Your task to perform on an android device: Go to privacy settings Image 0: 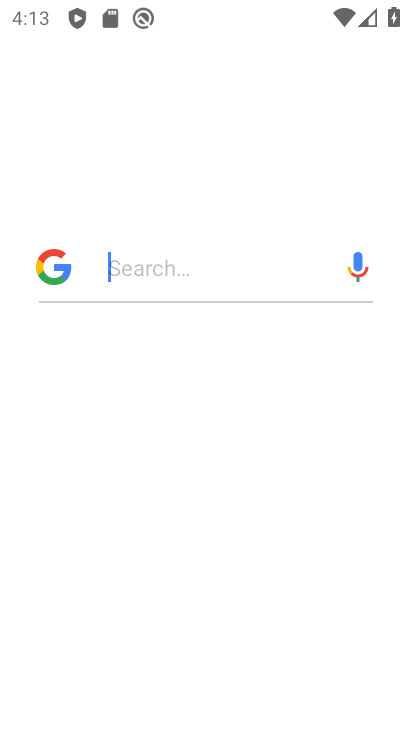
Step 0: drag from (337, 584) to (211, 455)
Your task to perform on an android device: Go to privacy settings Image 1: 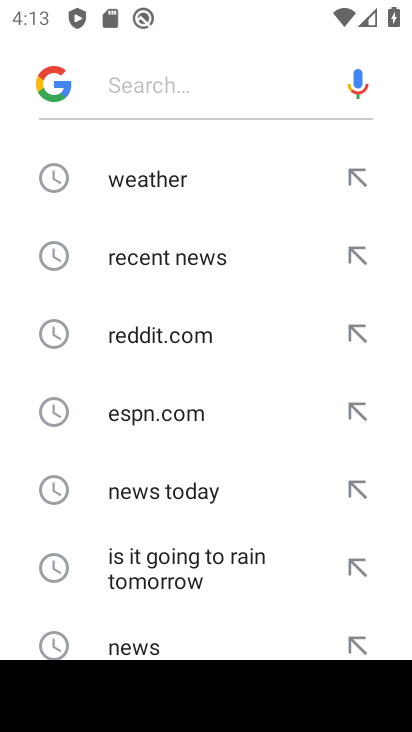
Step 1: press home button
Your task to perform on an android device: Go to privacy settings Image 2: 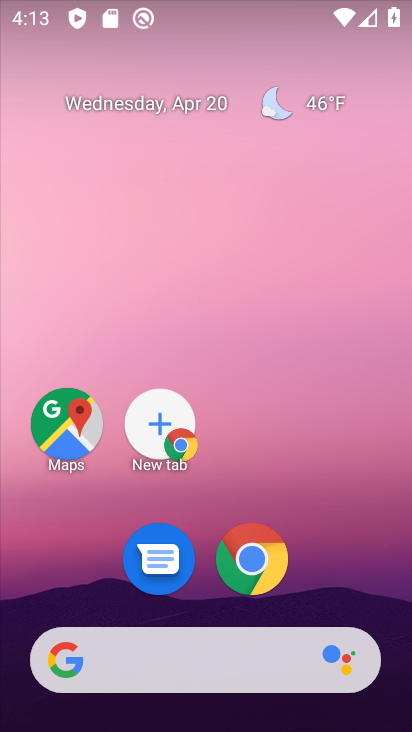
Step 2: drag from (355, 560) to (343, 254)
Your task to perform on an android device: Go to privacy settings Image 3: 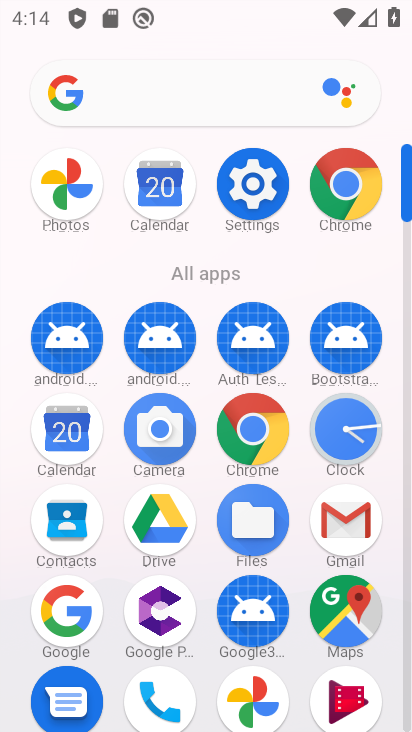
Step 3: click (274, 172)
Your task to perform on an android device: Go to privacy settings Image 4: 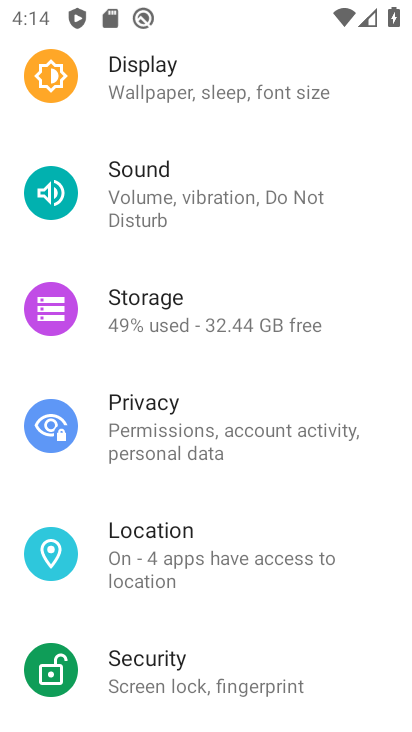
Step 4: click (235, 423)
Your task to perform on an android device: Go to privacy settings Image 5: 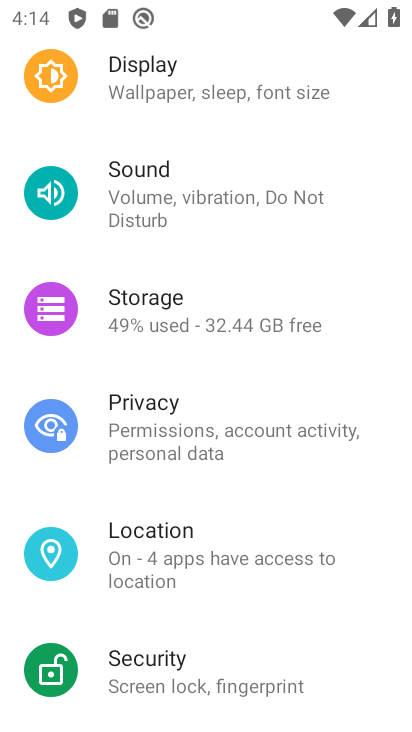
Step 5: task complete